Your task to perform on an android device: toggle priority inbox in the gmail app Image 0: 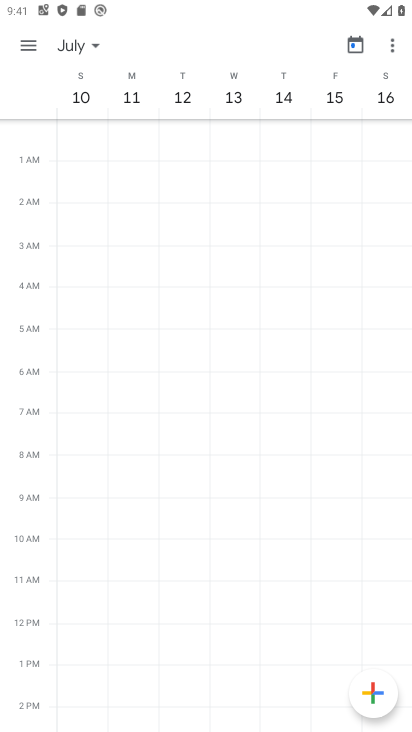
Step 0: press home button
Your task to perform on an android device: toggle priority inbox in the gmail app Image 1: 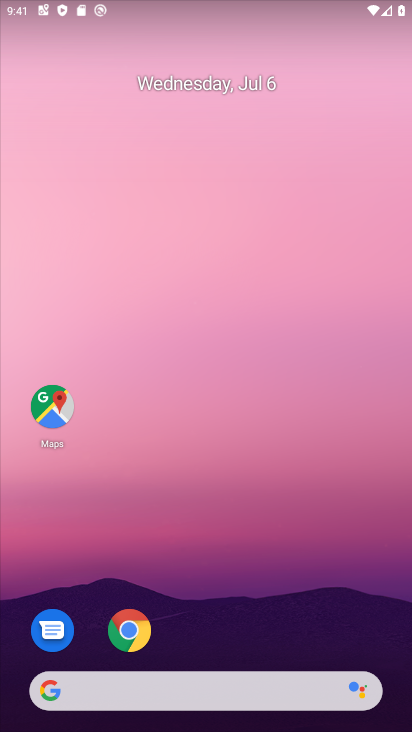
Step 1: drag from (379, 645) to (335, 53)
Your task to perform on an android device: toggle priority inbox in the gmail app Image 2: 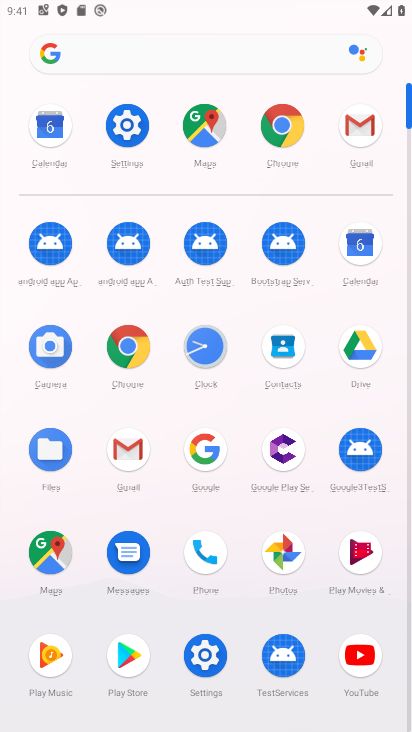
Step 2: click (128, 450)
Your task to perform on an android device: toggle priority inbox in the gmail app Image 3: 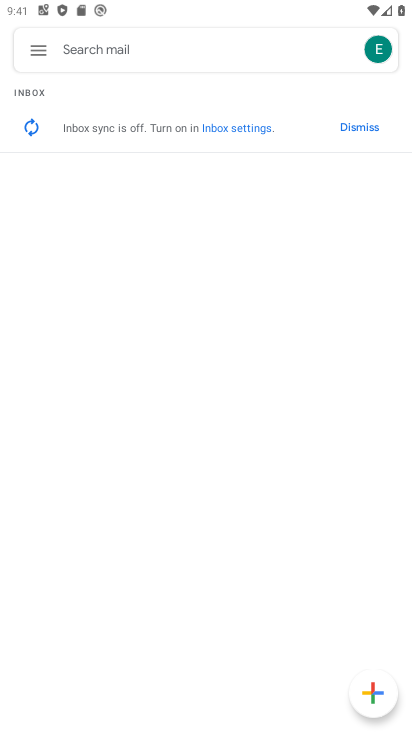
Step 3: click (40, 48)
Your task to perform on an android device: toggle priority inbox in the gmail app Image 4: 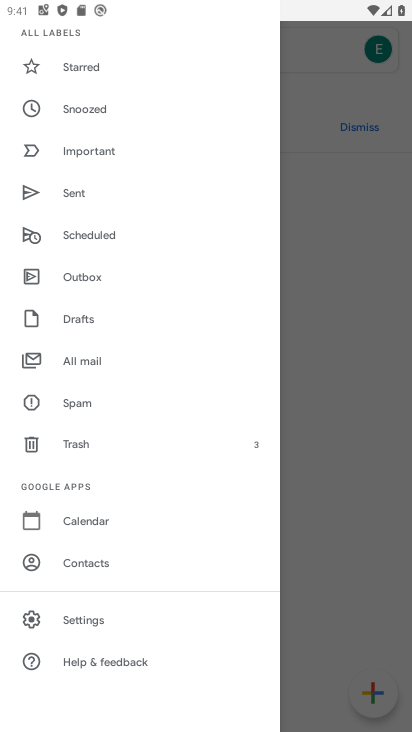
Step 4: click (95, 612)
Your task to perform on an android device: toggle priority inbox in the gmail app Image 5: 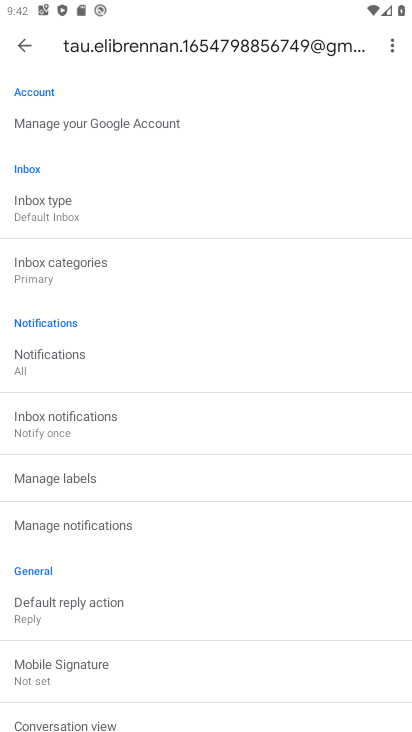
Step 5: click (44, 206)
Your task to perform on an android device: toggle priority inbox in the gmail app Image 6: 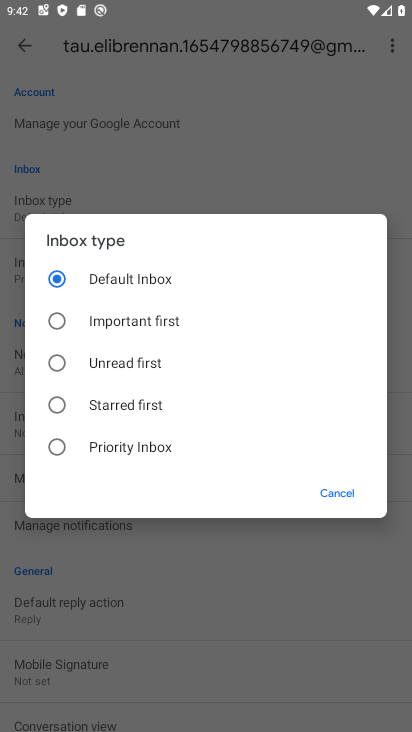
Step 6: click (55, 452)
Your task to perform on an android device: toggle priority inbox in the gmail app Image 7: 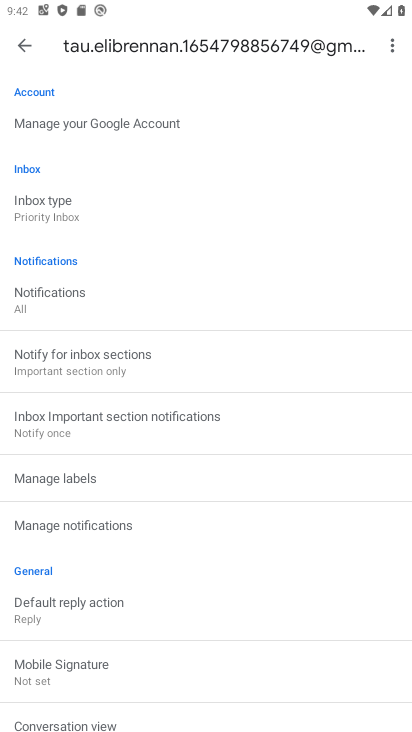
Step 7: task complete